Your task to perform on an android device: turn off improve location accuracy Image 0: 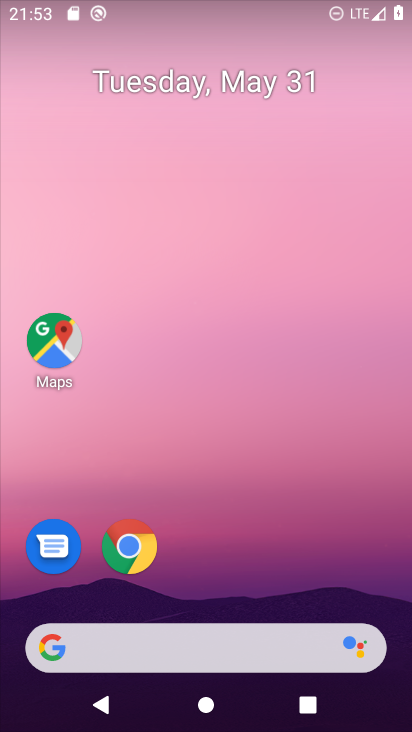
Step 0: drag from (388, 662) to (345, 144)
Your task to perform on an android device: turn off improve location accuracy Image 1: 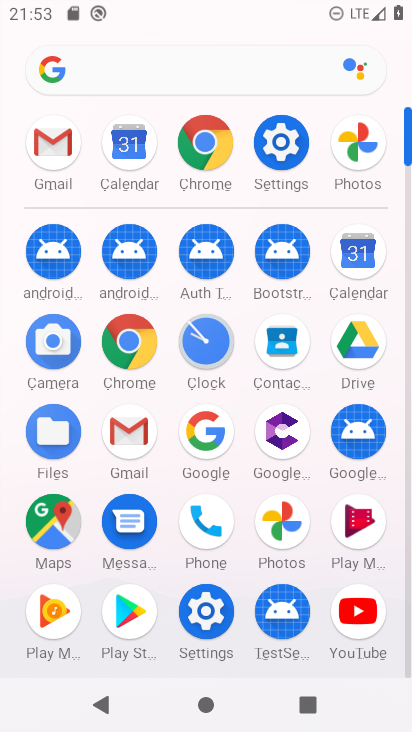
Step 1: click (275, 149)
Your task to perform on an android device: turn off improve location accuracy Image 2: 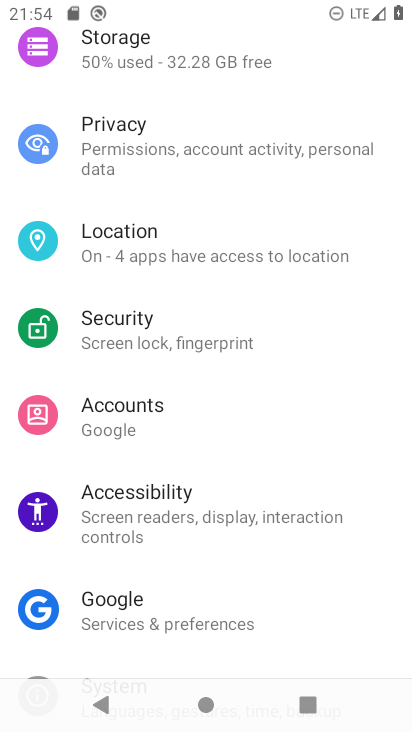
Step 2: click (129, 234)
Your task to perform on an android device: turn off improve location accuracy Image 3: 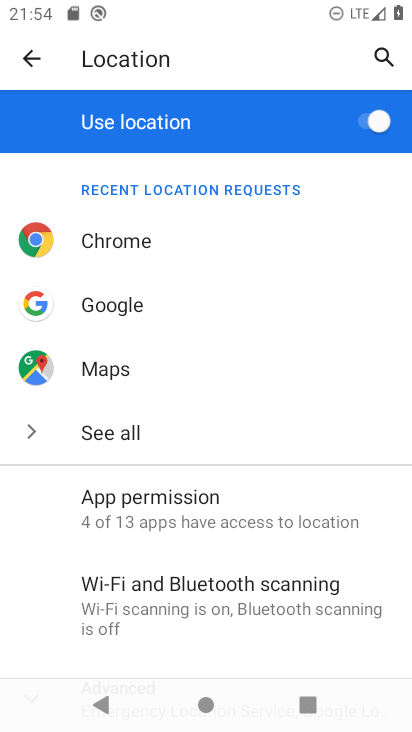
Step 3: drag from (138, 573) to (236, 184)
Your task to perform on an android device: turn off improve location accuracy Image 4: 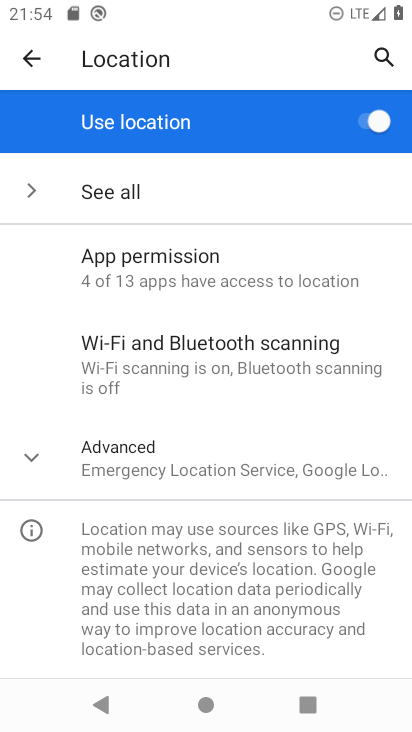
Step 4: click (31, 459)
Your task to perform on an android device: turn off improve location accuracy Image 5: 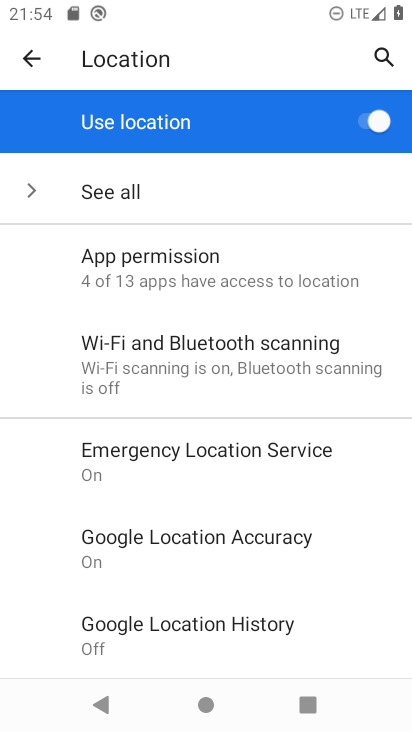
Step 5: drag from (171, 646) to (246, 368)
Your task to perform on an android device: turn off improve location accuracy Image 6: 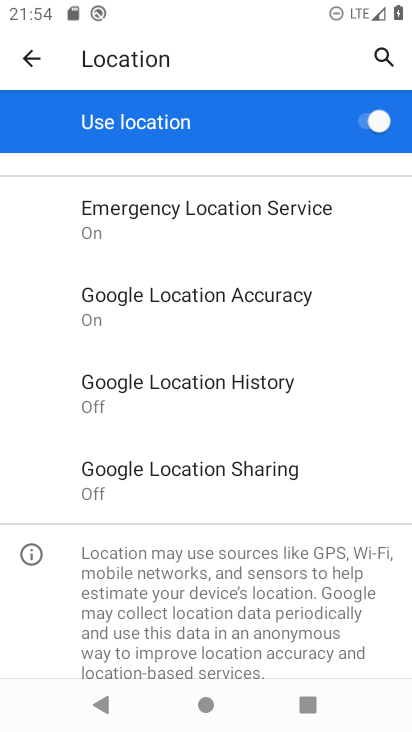
Step 6: drag from (246, 596) to (267, 260)
Your task to perform on an android device: turn off improve location accuracy Image 7: 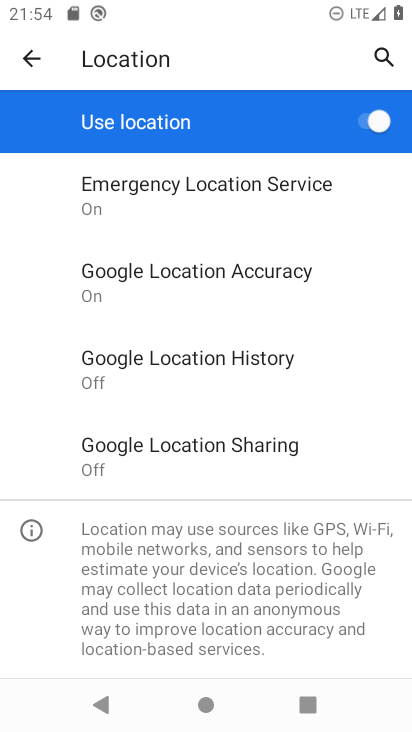
Step 7: click (231, 279)
Your task to perform on an android device: turn off improve location accuracy Image 8: 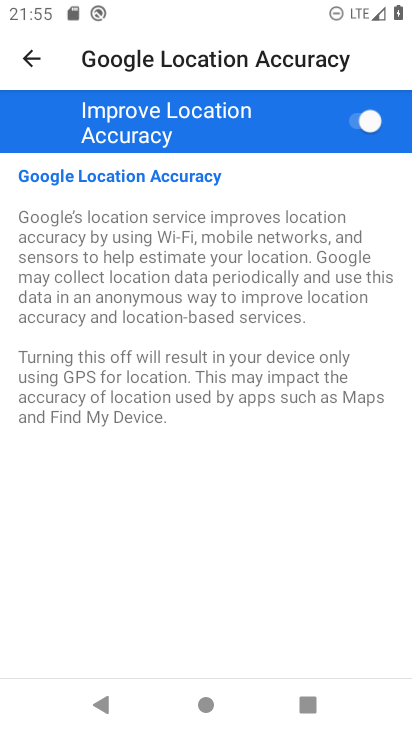
Step 8: click (355, 117)
Your task to perform on an android device: turn off improve location accuracy Image 9: 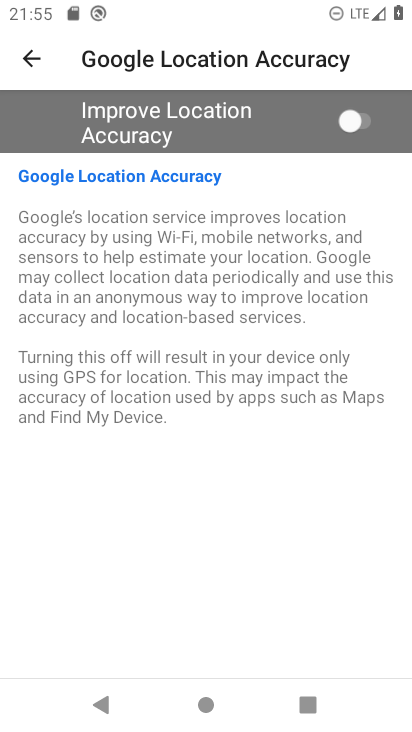
Step 9: task complete